Your task to perform on an android device: Clear the shopping cart on costco. Search for "bose soundlink" on costco, select the first entry, and add it to the cart. Image 0: 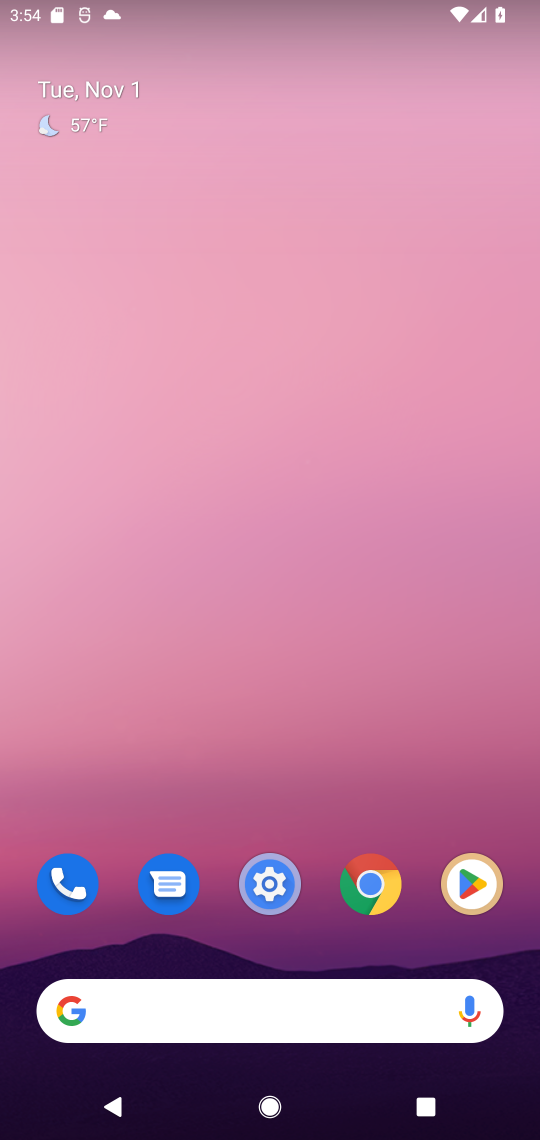
Step 0: press home button
Your task to perform on an android device: Clear the shopping cart on costco. Search for "bose soundlink" on costco, select the first entry, and add it to the cart. Image 1: 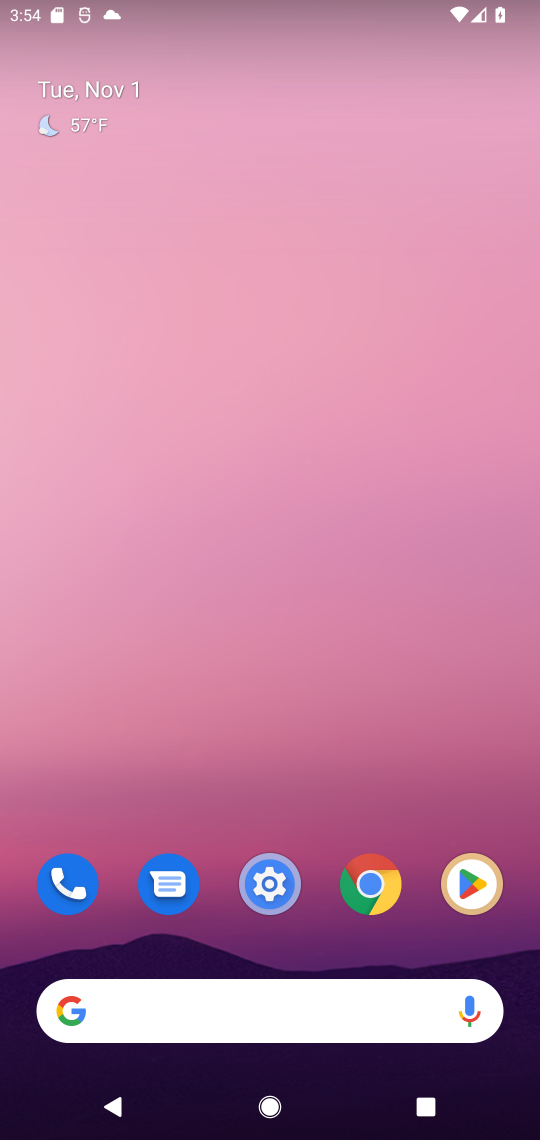
Step 1: click (95, 1010)
Your task to perform on an android device: Clear the shopping cart on costco. Search for "bose soundlink" on costco, select the first entry, and add it to the cart. Image 2: 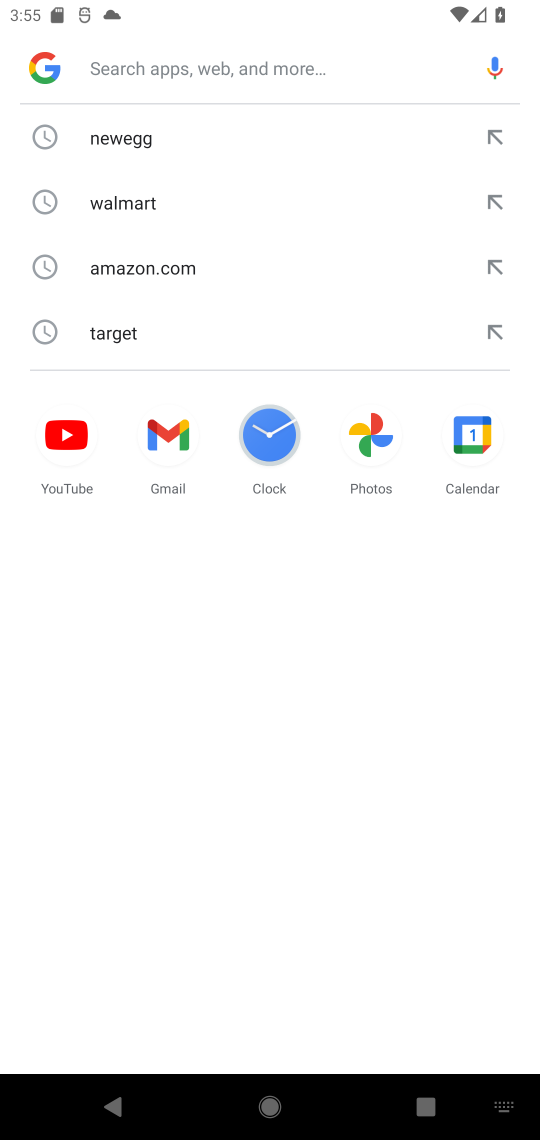
Step 2: type "costco"
Your task to perform on an android device: Clear the shopping cart on costco. Search for "bose soundlink" on costco, select the first entry, and add it to the cart. Image 3: 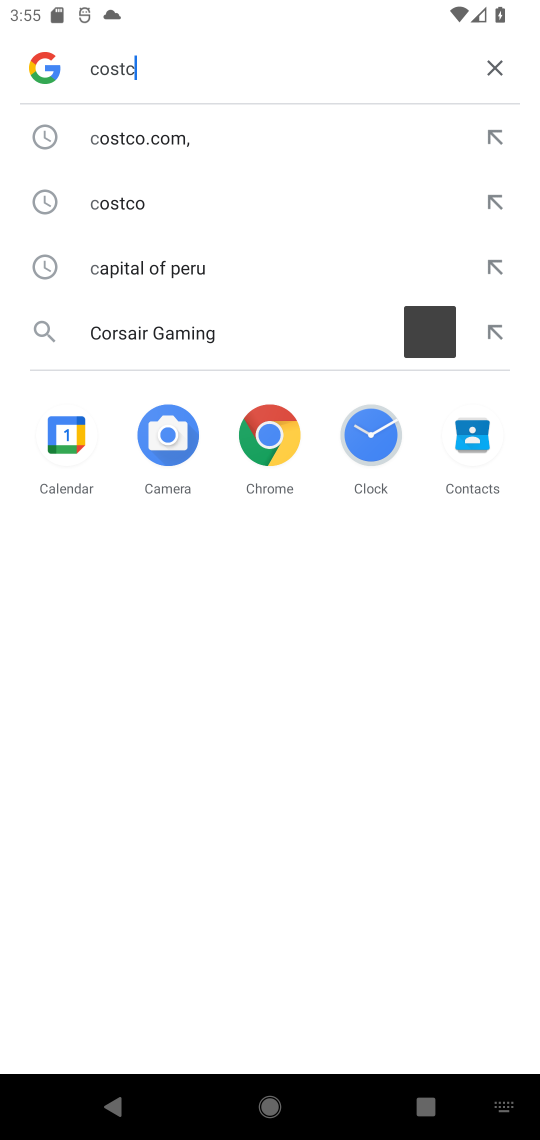
Step 3: press enter
Your task to perform on an android device: Clear the shopping cart on costco. Search for "bose soundlink" on costco, select the first entry, and add it to the cart. Image 4: 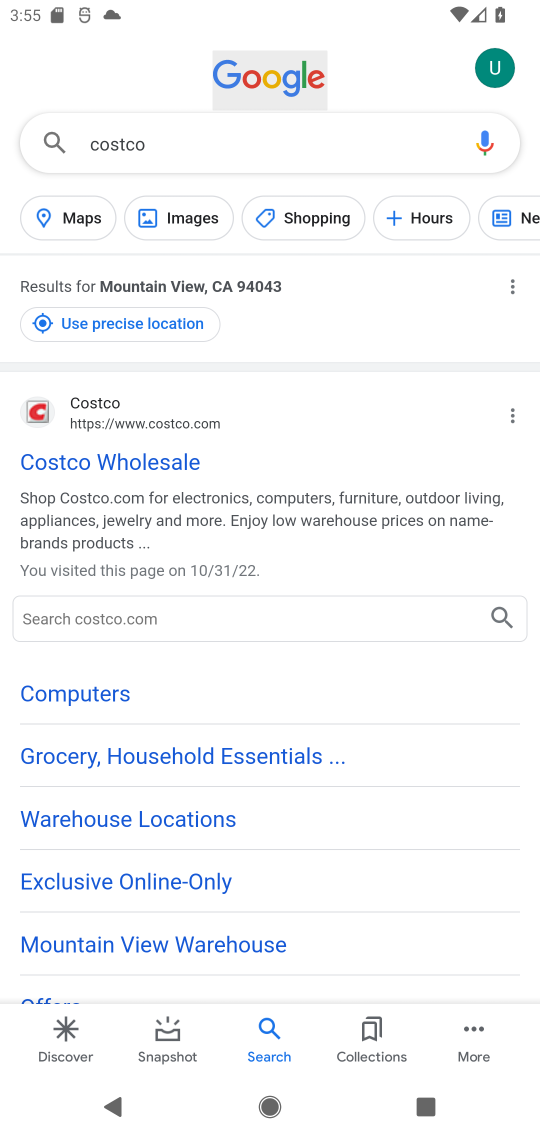
Step 4: click (138, 461)
Your task to perform on an android device: Clear the shopping cart on costco. Search for "bose soundlink" on costco, select the first entry, and add it to the cart. Image 5: 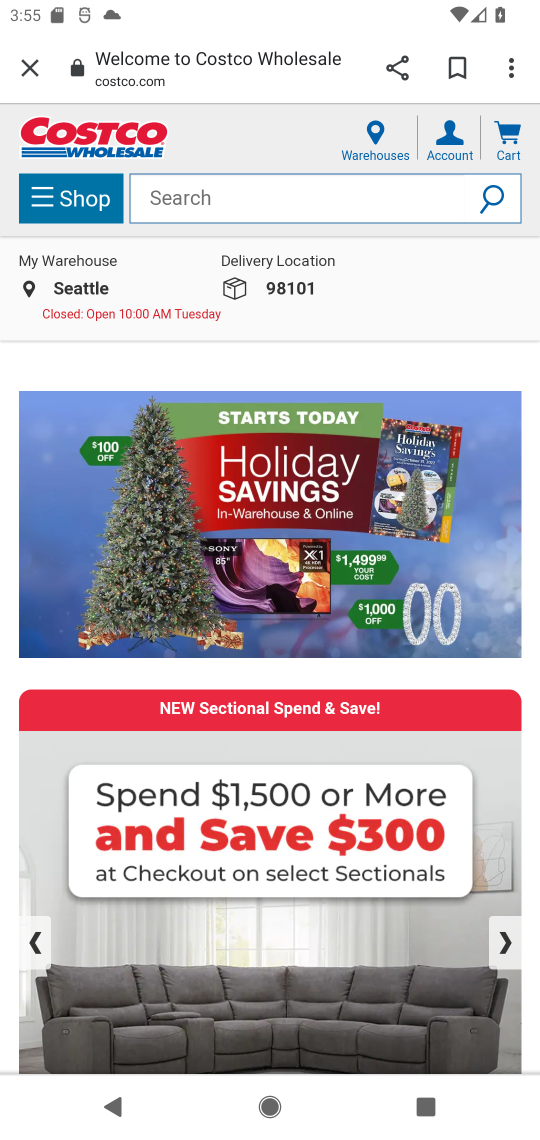
Step 5: click (176, 202)
Your task to perform on an android device: Clear the shopping cart on costco. Search for "bose soundlink" on costco, select the first entry, and add it to the cart. Image 6: 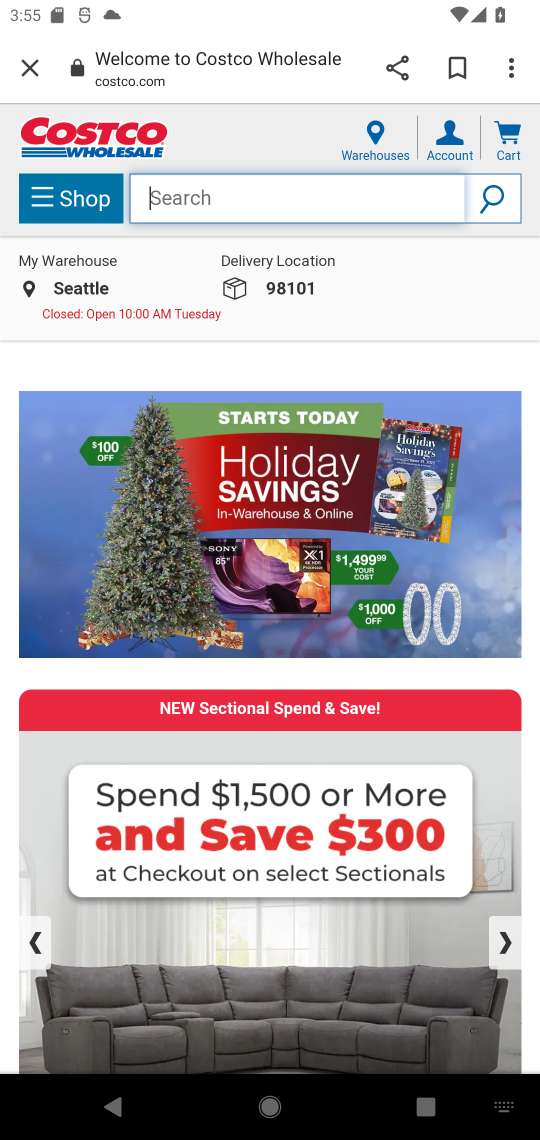
Step 6: type "bose soundlink"
Your task to perform on an android device: Clear the shopping cart on costco. Search for "bose soundlink" on costco, select the first entry, and add it to the cart. Image 7: 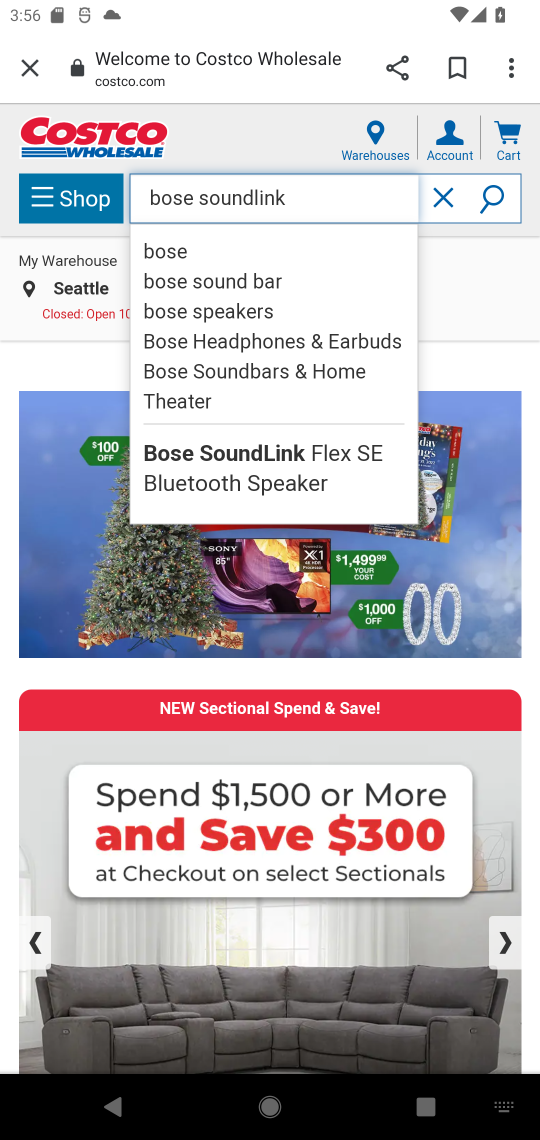
Step 7: click (494, 193)
Your task to perform on an android device: Clear the shopping cart on costco. Search for "bose soundlink" on costco, select the first entry, and add it to the cart. Image 8: 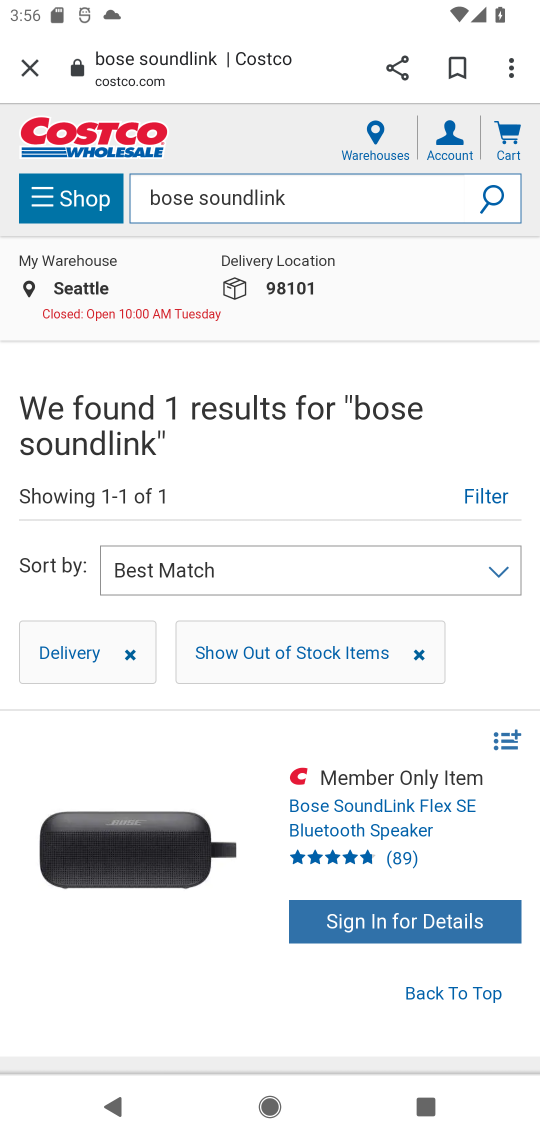
Step 8: drag from (304, 811) to (328, 387)
Your task to perform on an android device: Clear the shopping cart on costco. Search for "bose soundlink" on costco, select the first entry, and add it to the cart. Image 9: 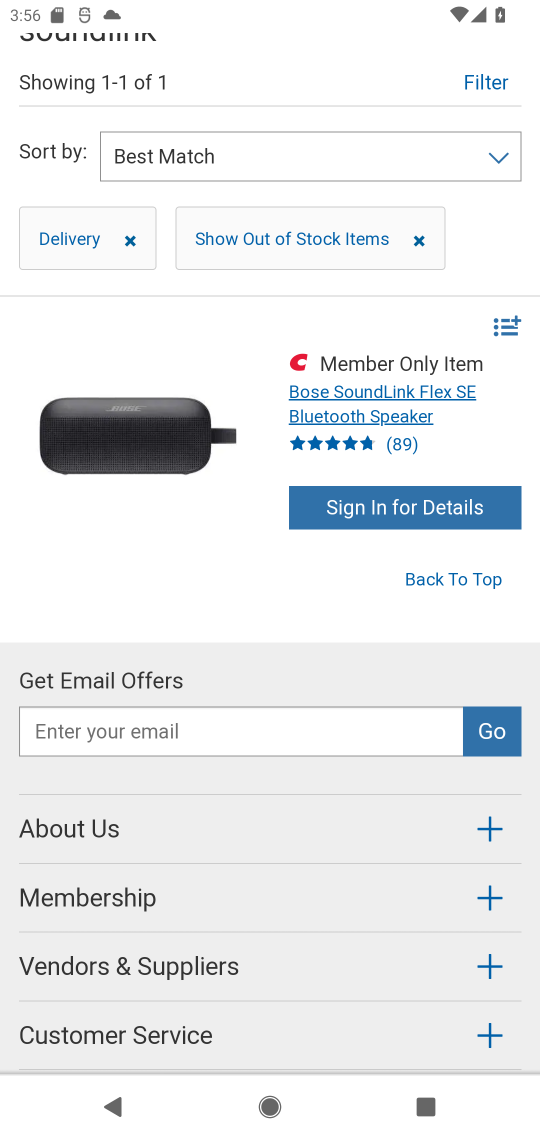
Step 9: click (355, 388)
Your task to perform on an android device: Clear the shopping cart on costco. Search for "bose soundlink" on costco, select the first entry, and add it to the cart. Image 10: 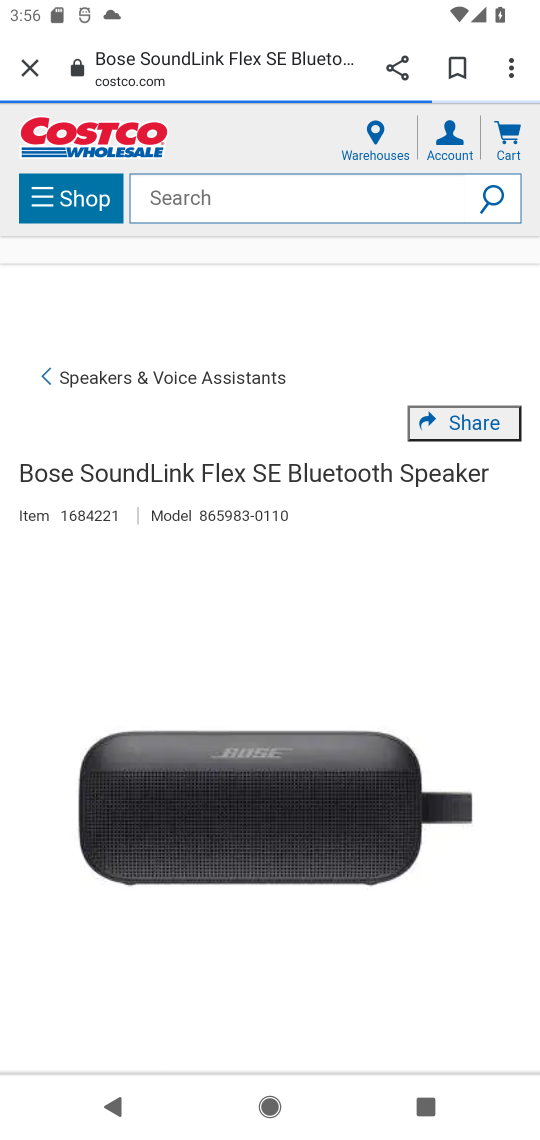
Step 10: task complete